Your task to perform on an android device: all mails in gmail Image 0: 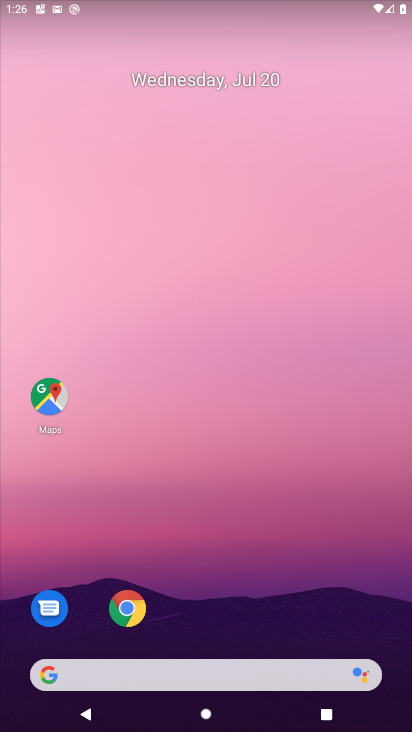
Step 0: drag from (288, 633) to (288, 209)
Your task to perform on an android device: all mails in gmail Image 1: 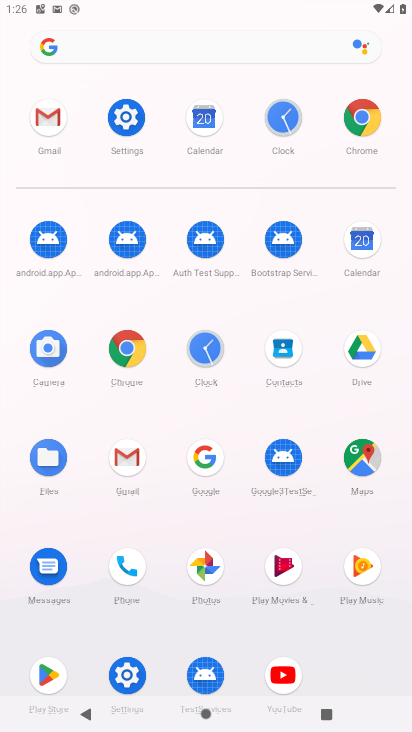
Step 1: click (131, 452)
Your task to perform on an android device: all mails in gmail Image 2: 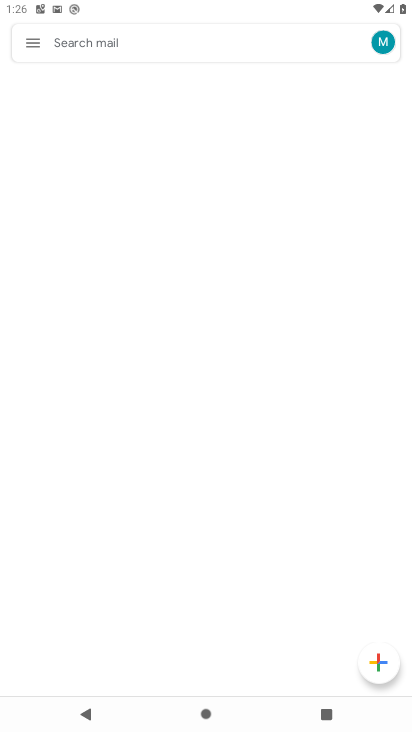
Step 2: click (36, 48)
Your task to perform on an android device: all mails in gmail Image 3: 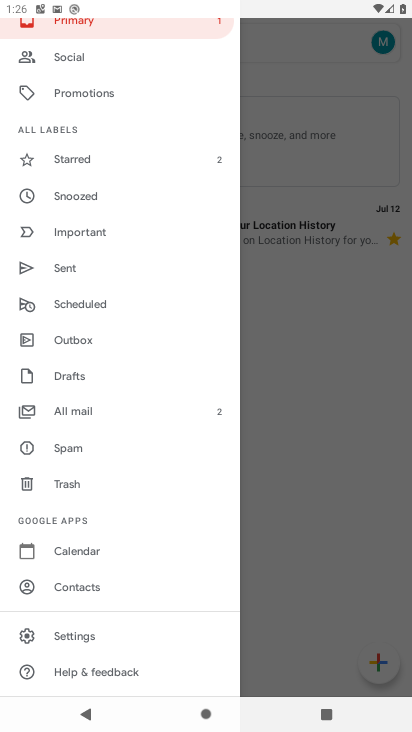
Step 3: click (74, 410)
Your task to perform on an android device: all mails in gmail Image 4: 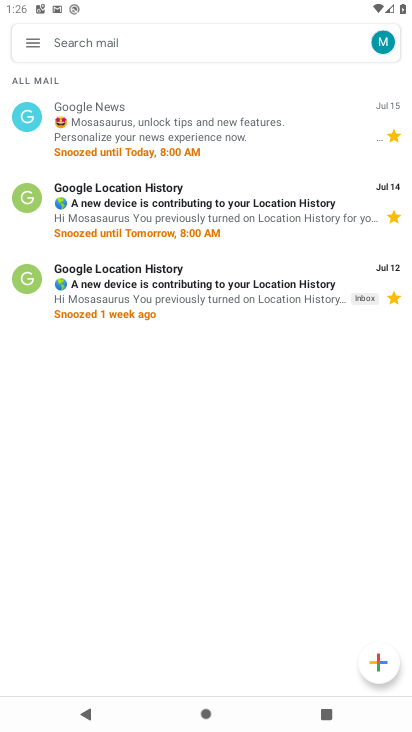
Step 4: task complete